Your task to perform on an android device: turn smart compose on in the gmail app Image 0: 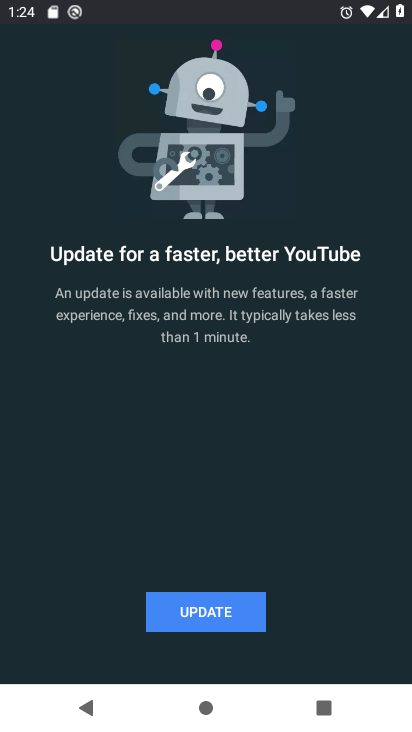
Step 0: task complete